Your task to perform on an android device: turn on location history Image 0: 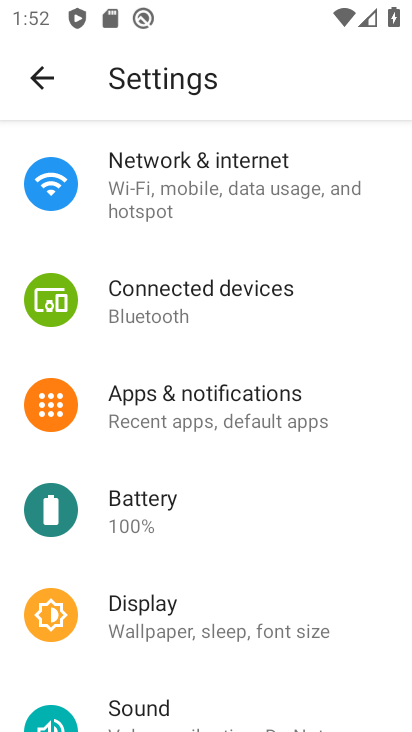
Step 0: drag from (225, 556) to (303, 183)
Your task to perform on an android device: turn on location history Image 1: 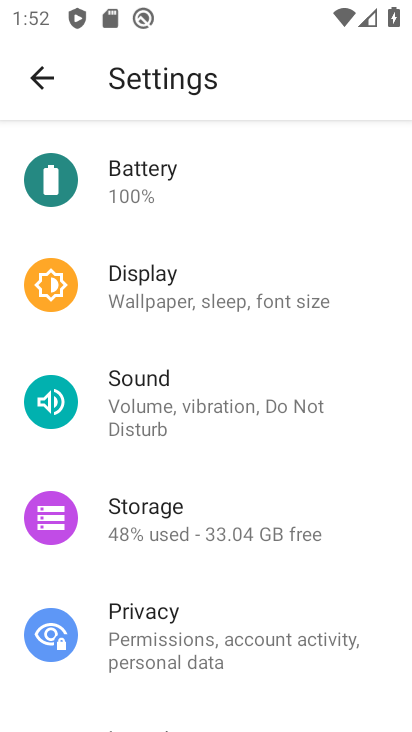
Step 1: drag from (203, 517) to (306, 208)
Your task to perform on an android device: turn on location history Image 2: 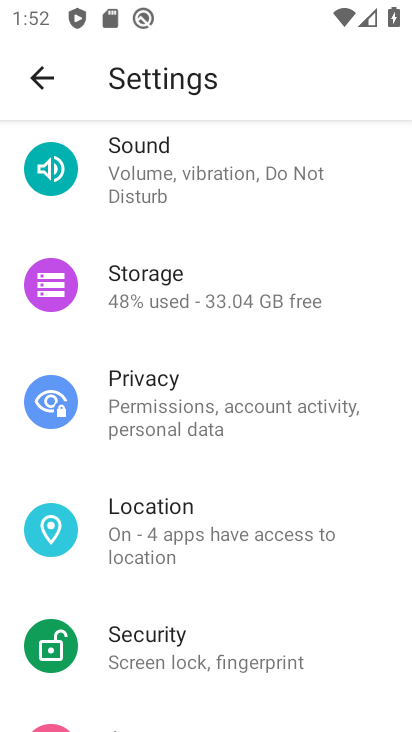
Step 2: click (250, 532)
Your task to perform on an android device: turn on location history Image 3: 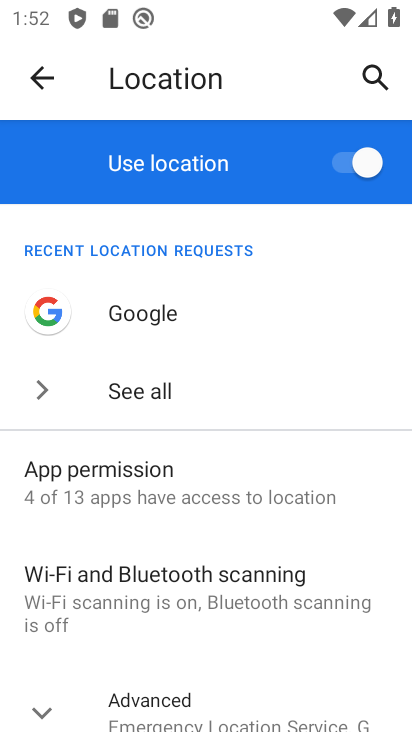
Step 3: drag from (197, 555) to (281, 228)
Your task to perform on an android device: turn on location history Image 4: 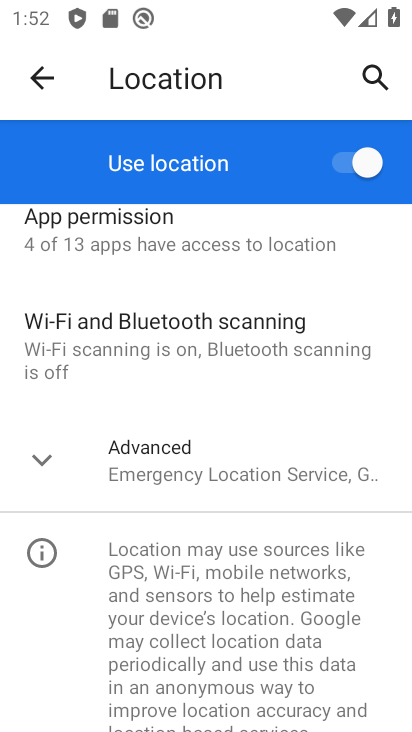
Step 4: click (153, 459)
Your task to perform on an android device: turn on location history Image 5: 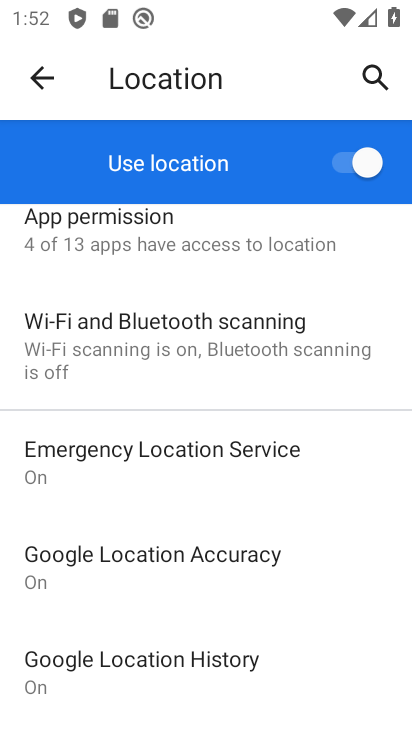
Step 5: click (200, 657)
Your task to perform on an android device: turn on location history Image 6: 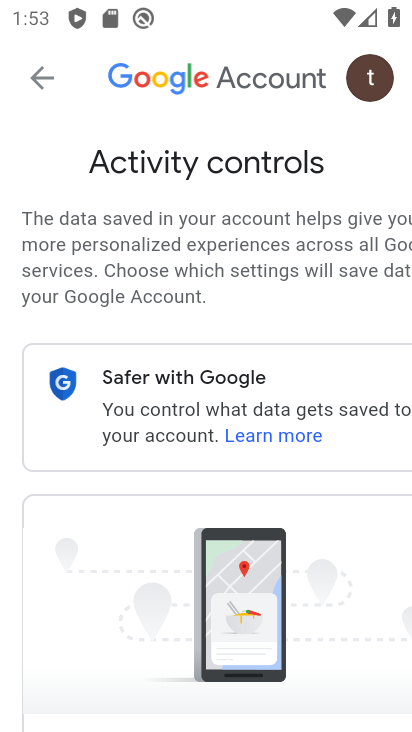
Step 6: task complete